Your task to perform on an android device: Go to Wikipedia Image 0: 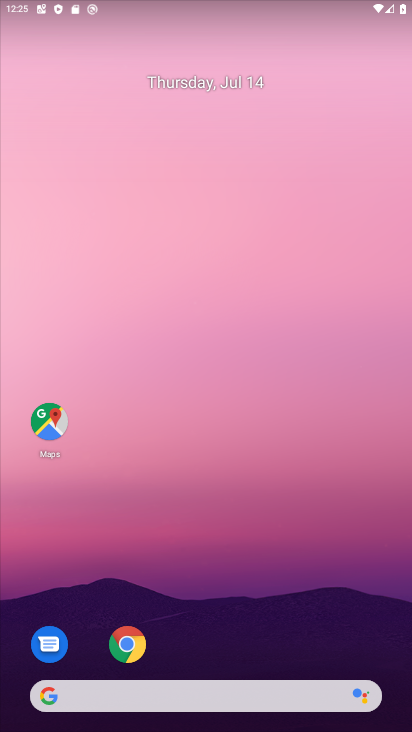
Step 0: drag from (258, 658) to (291, 125)
Your task to perform on an android device: Go to Wikipedia Image 1: 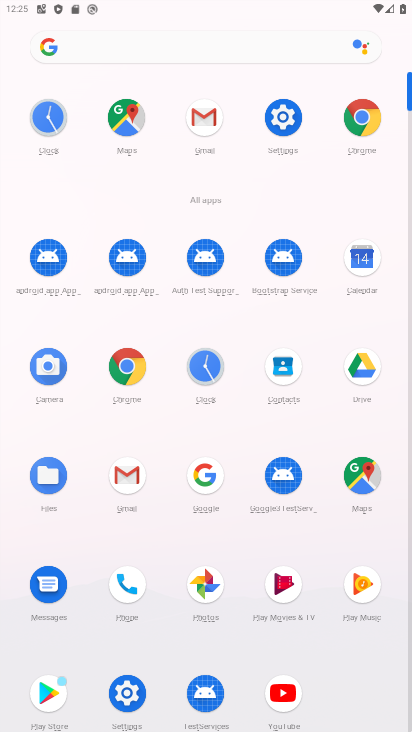
Step 1: click (121, 364)
Your task to perform on an android device: Go to Wikipedia Image 2: 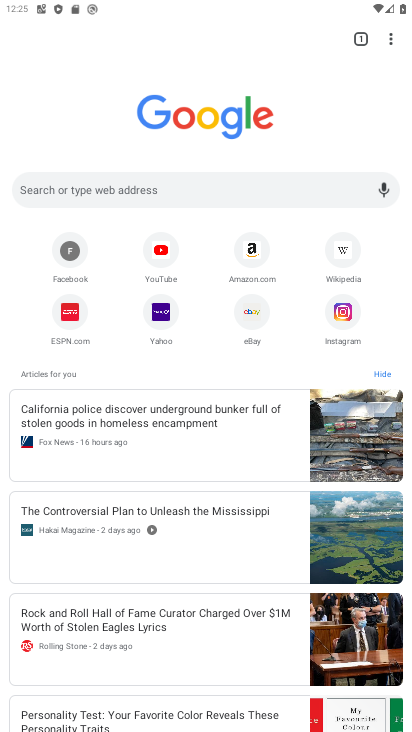
Step 2: click (348, 253)
Your task to perform on an android device: Go to Wikipedia Image 3: 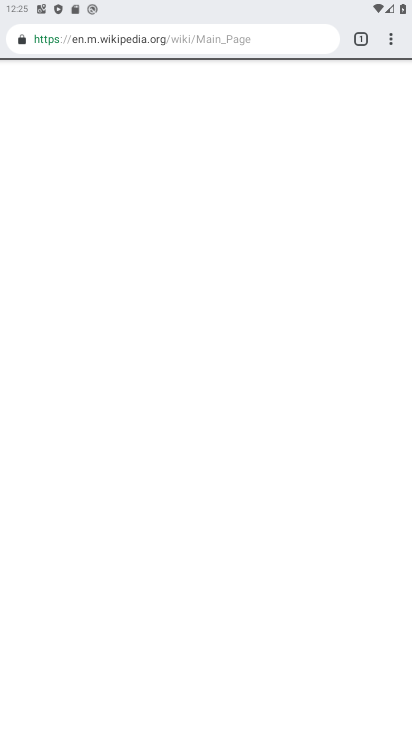
Step 3: task complete